Your task to perform on an android device: turn vacation reply on in the gmail app Image 0: 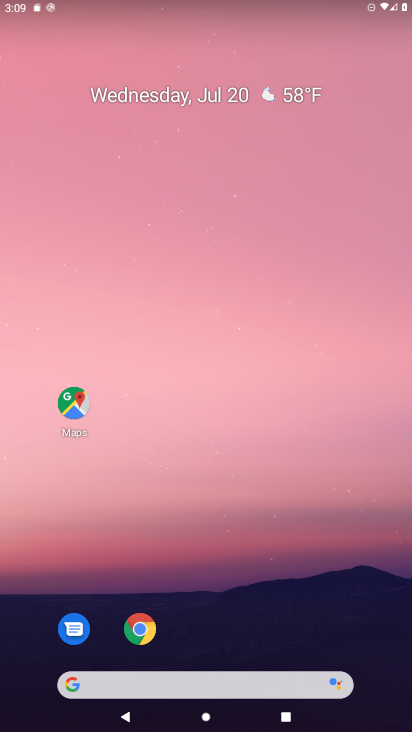
Step 0: drag from (218, 591) to (302, 46)
Your task to perform on an android device: turn vacation reply on in the gmail app Image 1: 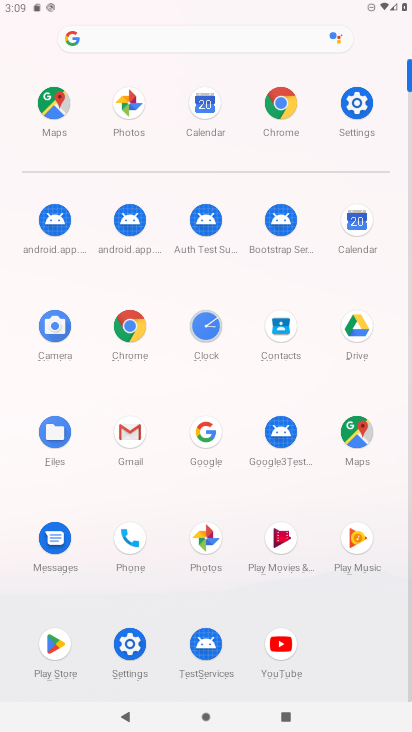
Step 1: click (124, 436)
Your task to perform on an android device: turn vacation reply on in the gmail app Image 2: 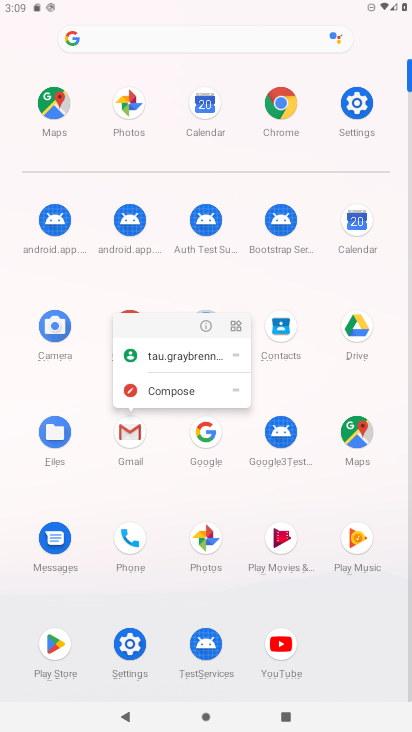
Step 2: click (126, 434)
Your task to perform on an android device: turn vacation reply on in the gmail app Image 3: 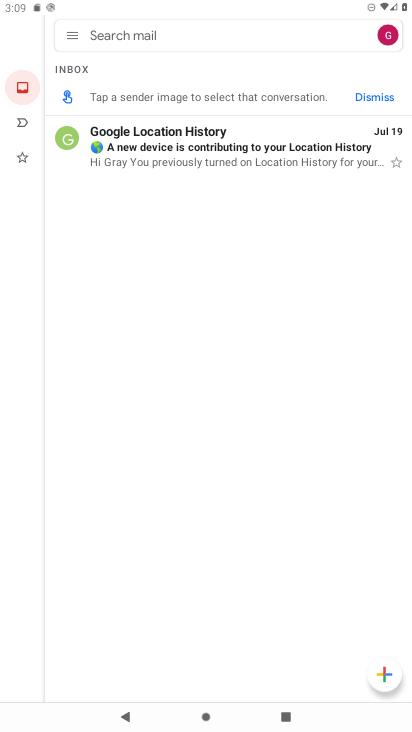
Step 3: click (70, 22)
Your task to perform on an android device: turn vacation reply on in the gmail app Image 4: 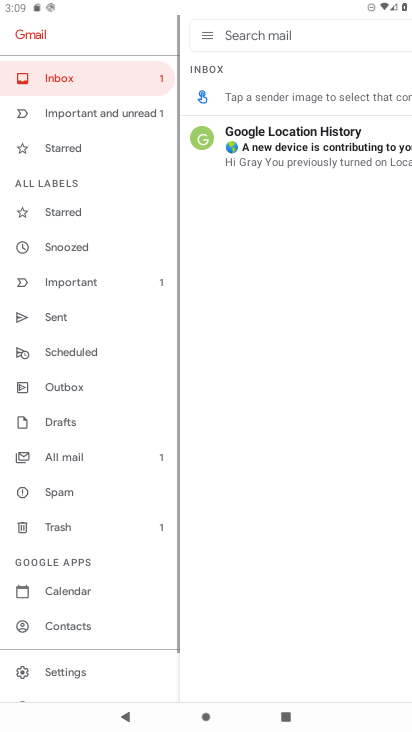
Step 4: drag from (102, 544) to (121, 173)
Your task to perform on an android device: turn vacation reply on in the gmail app Image 5: 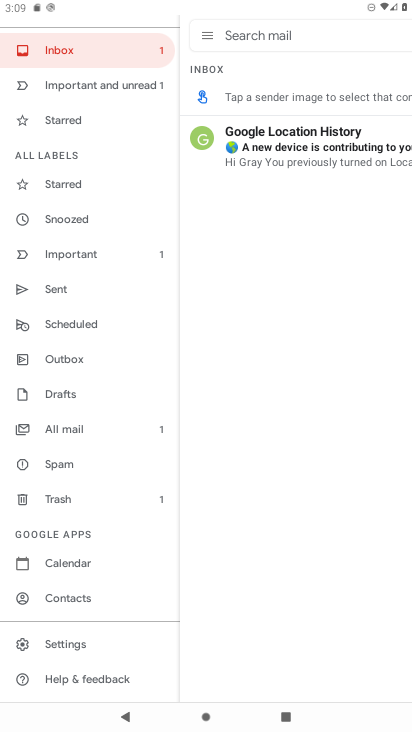
Step 5: click (51, 630)
Your task to perform on an android device: turn vacation reply on in the gmail app Image 6: 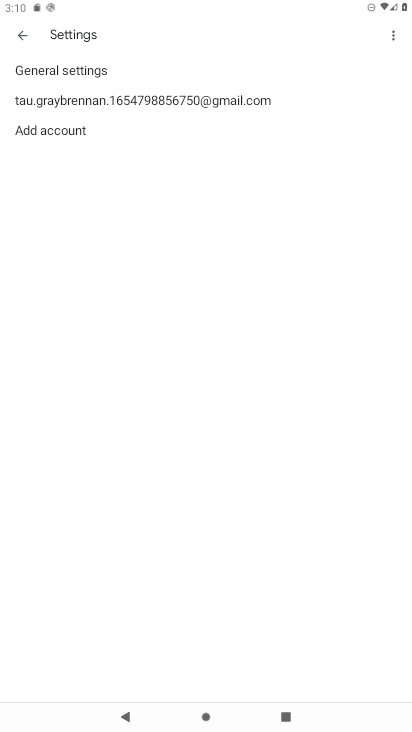
Step 6: click (168, 96)
Your task to perform on an android device: turn vacation reply on in the gmail app Image 7: 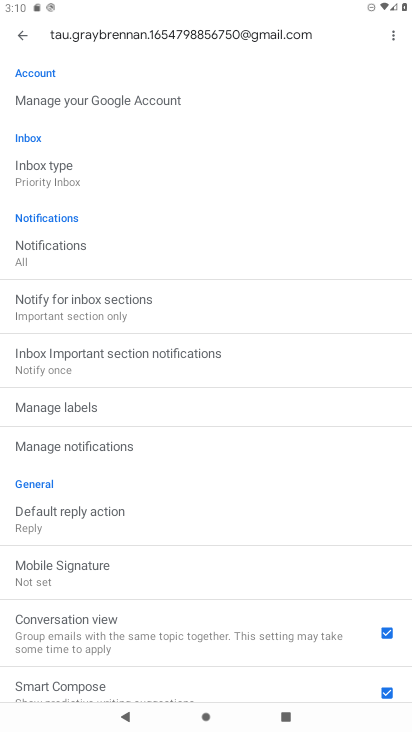
Step 7: drag from (211, 615) to (248, 257)
Your task to perform on an android device: turn vacation reply on in the gmail app Image 8: 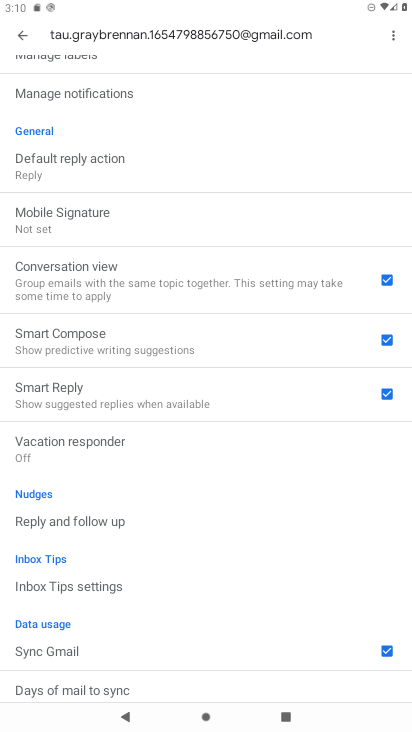
Step 8: click (96, 434)
Your task to perform on an android device: turn vacation reply on in the gmail app Image 9: 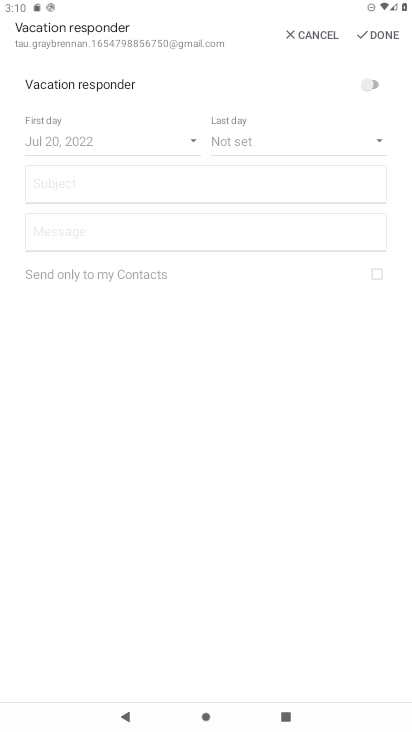
Step 9: click (376, 79)
Your task to perform on an android device: turn vacation reply on in the gmail app Image 10: 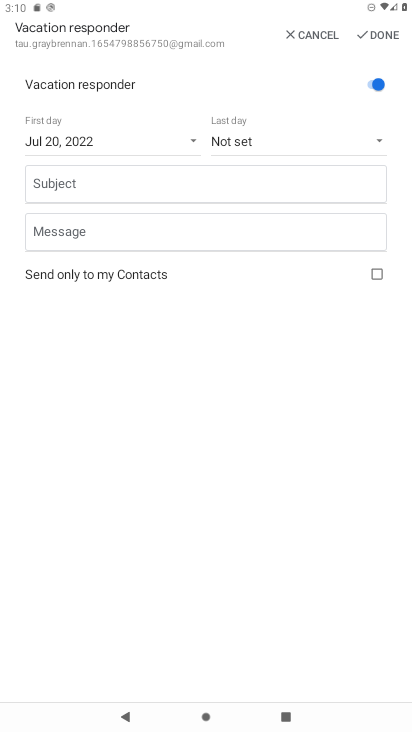
Step 10: click (386, 33)
Your task to perform on an android device: turn vacation reply on in the gmail app Image 11: 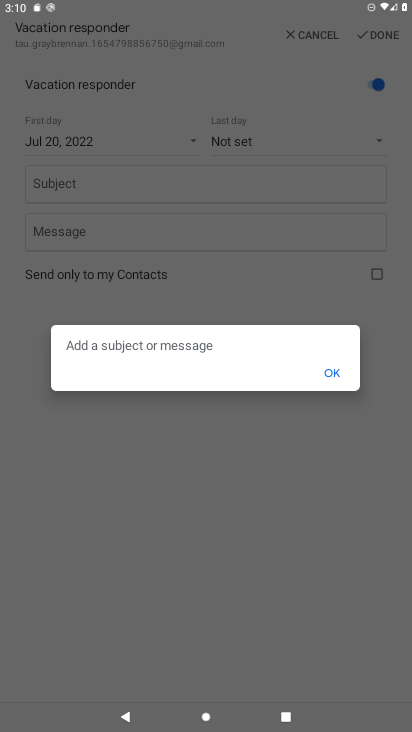
Step 11: click (329, 370)
Your task to perform on an android device: turn vacation reply on in the gmail app Image 12: 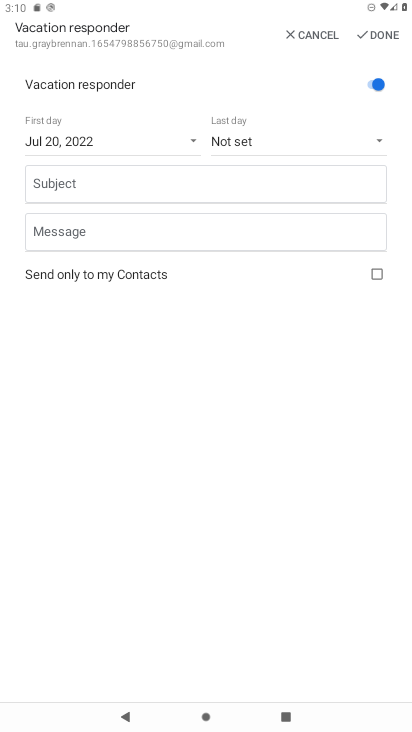
Step 12: task complete